Your task to perform on an android device: Open Yahoo.com Image 0: 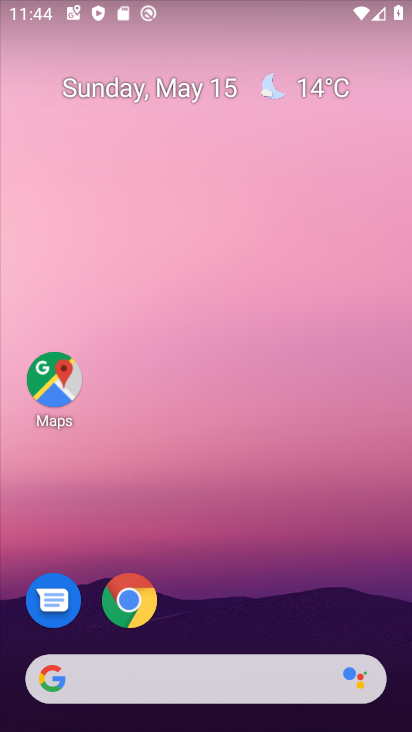
Step 0: click (138, 602)
Your task to perform on an android device: Open Yahoo.com Image 1: 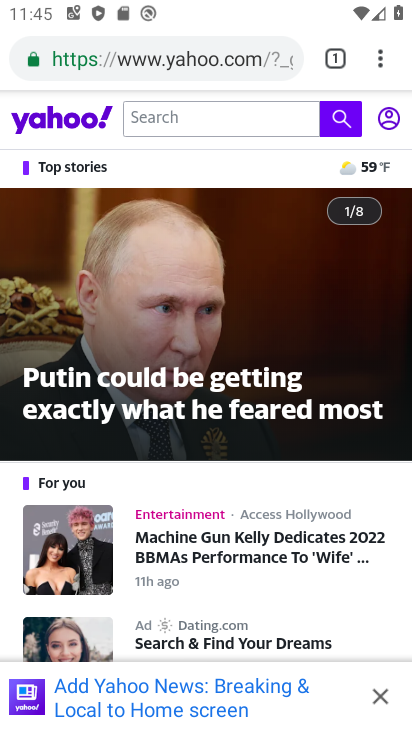
Step 1: task complete